Your task to perform on an android device: add a contact Image 0: 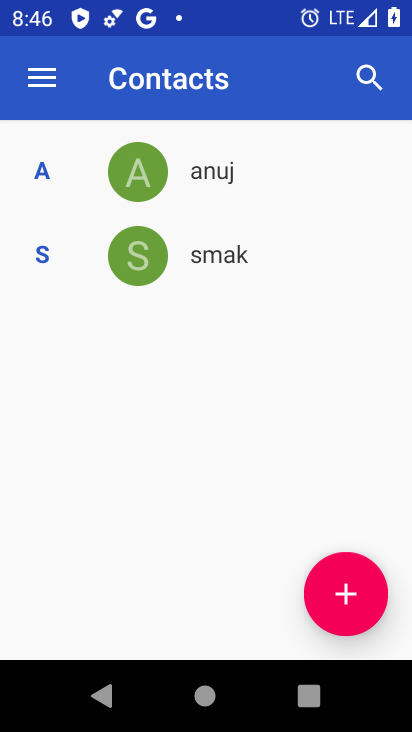
Step 0: press home button
Your task to perform on an android device: add a contact Image 1: 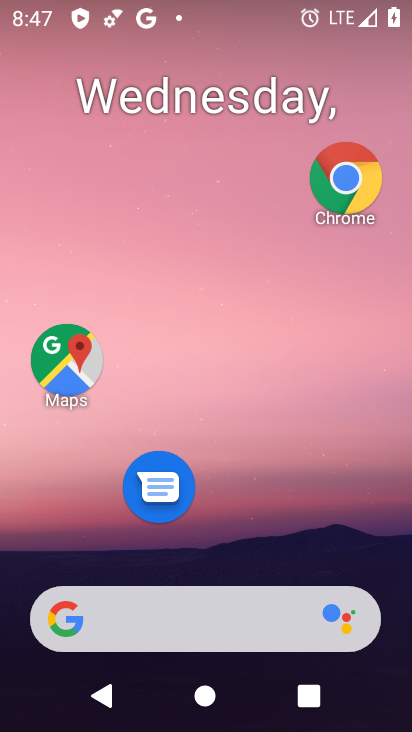
Step 1: drag from (189, 601) to (128, 208)
Your task to perform on an android device: add a contact Image 2: 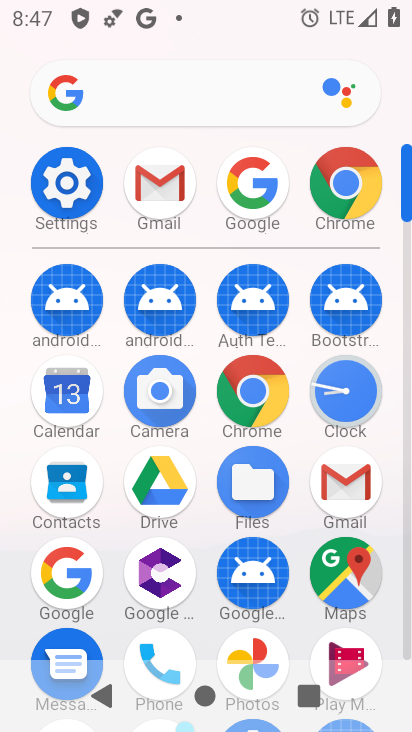
Step 2: click (68, 484)
Your task to perform on an android device: add a contact Image 3: 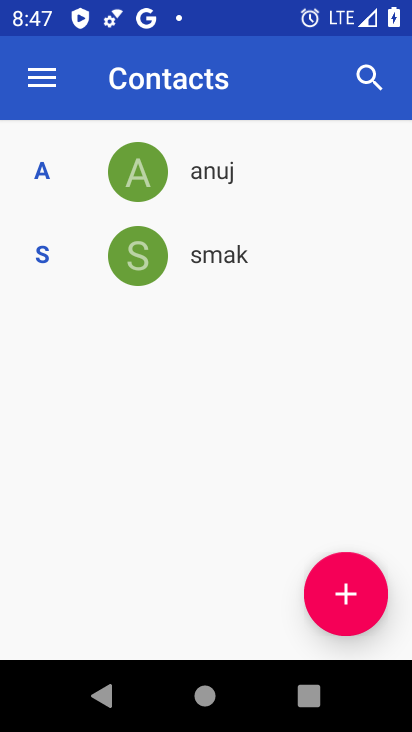
Step 3: click (348, 595)
Your task to perform on an android device: add a contact Image 4: 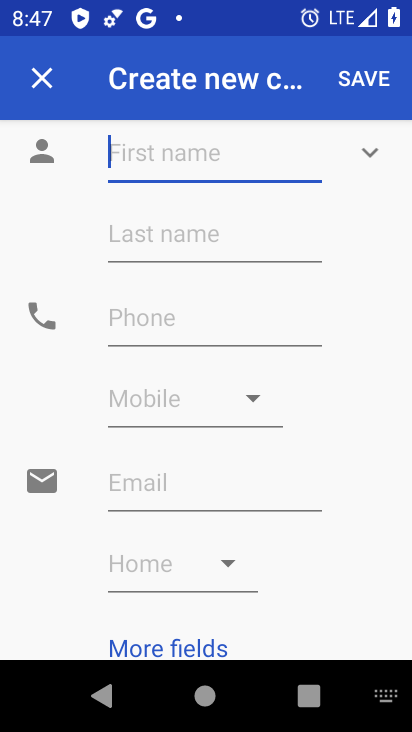
Step 4: type "guugkgu"
Your task to perform on an android device: add a contact Image 5: 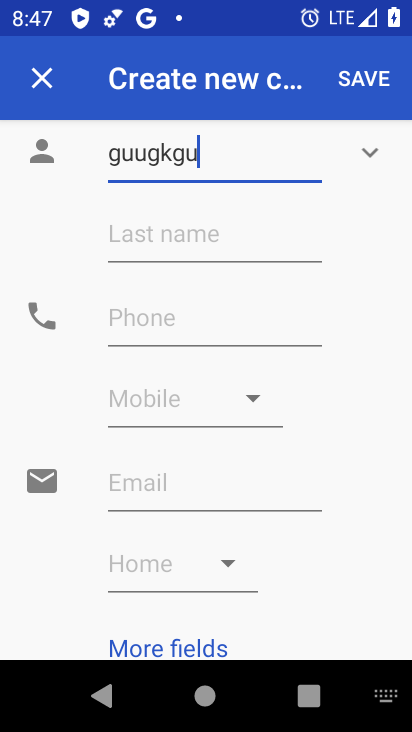
Step 5: click (223, 310)
Your task to perform on an android device: add a contact Image 6: 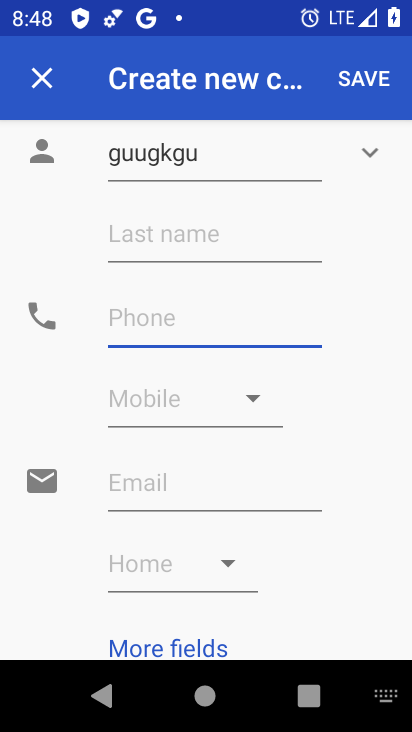
Step 6: type "9879865587"
Your task to perform on an android device: add a contact Image 7: 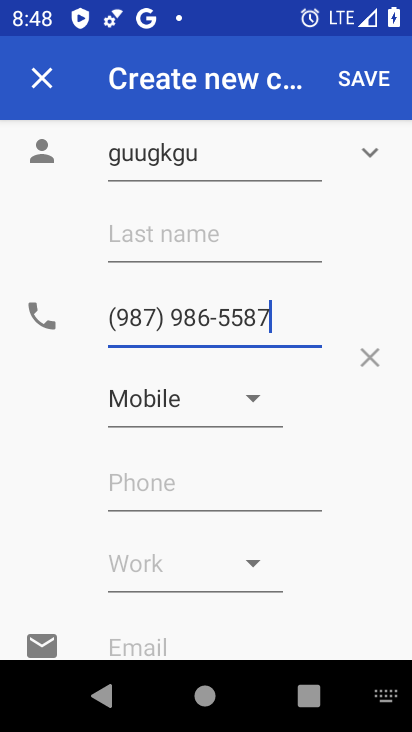
Step 7: click (188, 488)
Your task to perform on an android device: add a contact Image 8: 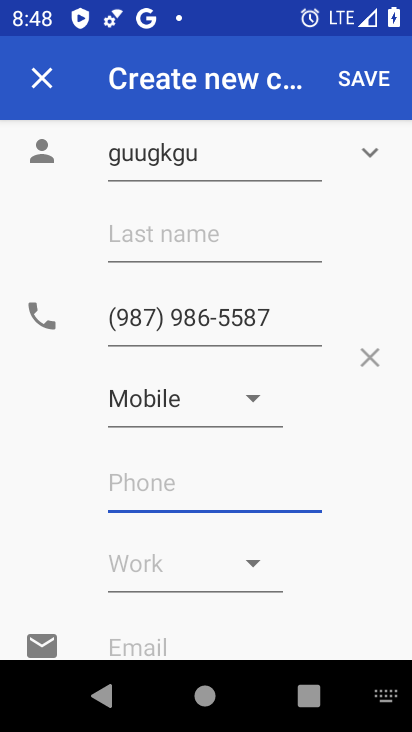
Step 8: click (375, 85)
Your task to perform on an android device: add a contact Image 9: 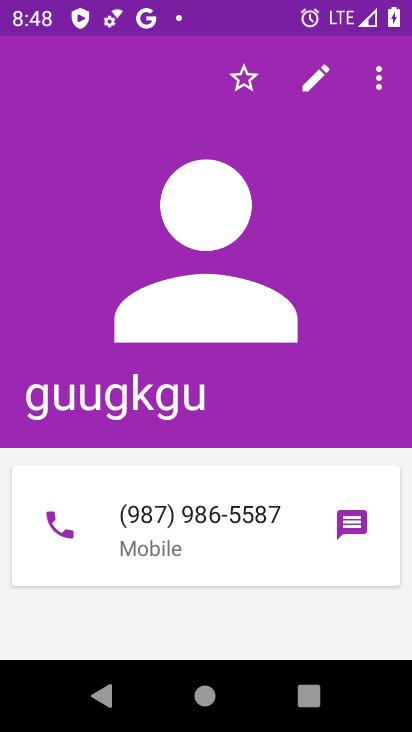
Step 9: task complete